Your task to perform on an android device: Go to Wikipedia Image 0: 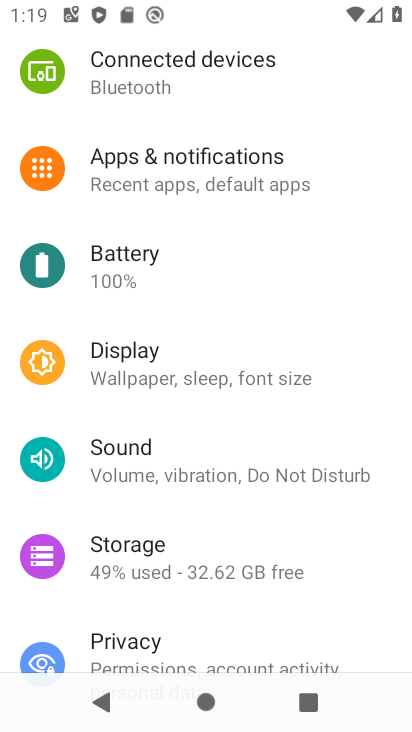
Step 0: press home button
Your task to perform on an android device: Go to Wikipedia Image 1: 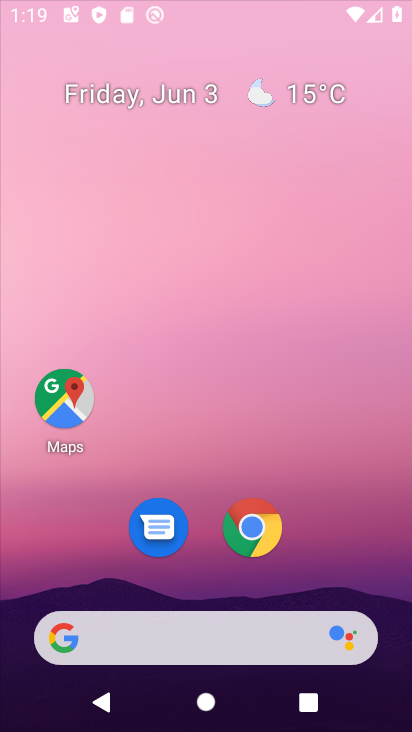
Step 1: press home button
Your task to perform on an android device: Go to Wikipedia Image 2: 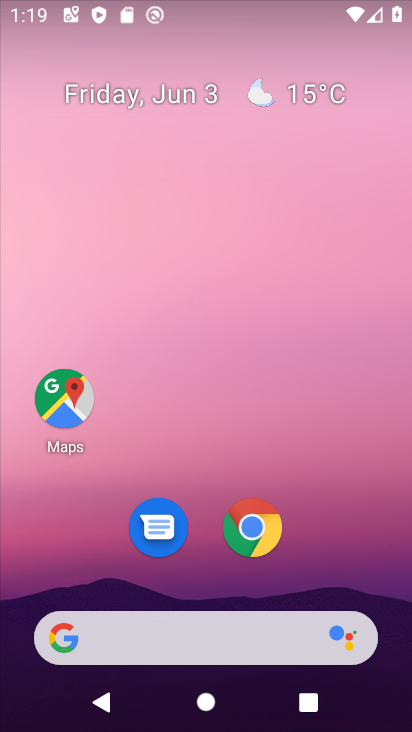
Step 2: click (269, 528)
Your task to perform on an android device: Go to Wikipedia Image 3: 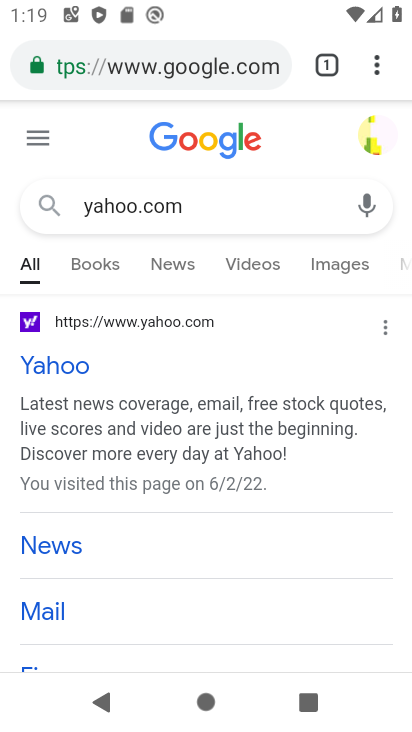
Step 3: click (224, 69)
Your task to perform on an android device: Go to Wikipedia Image 4: 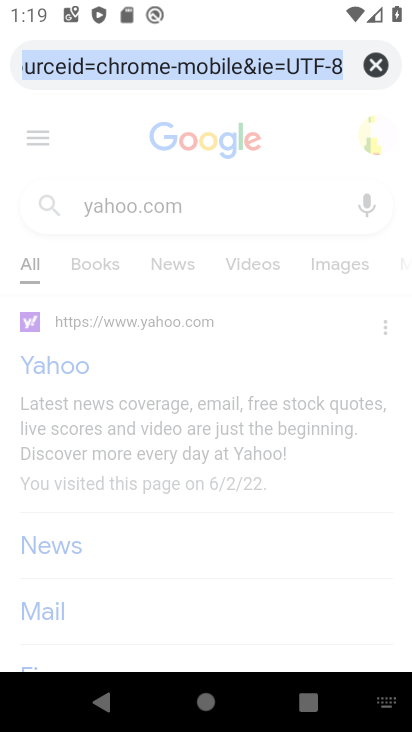
Step 4: click (374, 59)
Your task to perform on an android device: Go to Wikipedia Image 5: 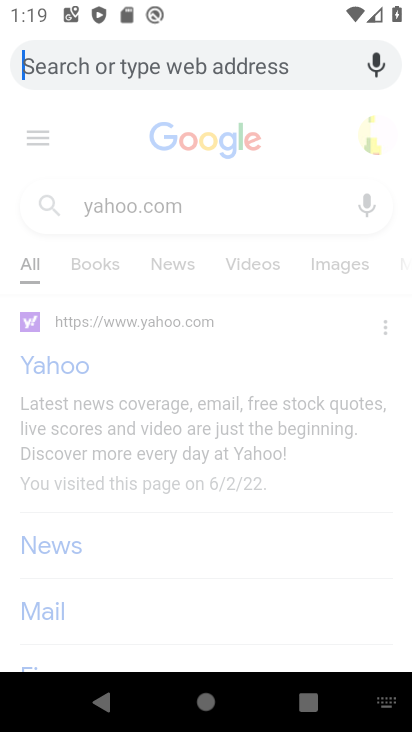
Step 5: type "wikipedia"
Your task to perform on an android device: Go to Wikipedia Image 6: 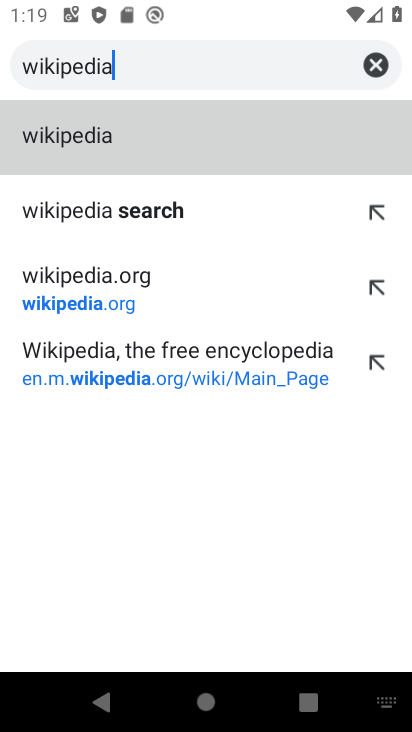
Step 6: click (150, 285)
Your task to perform on an android device: Go to Wikipedia Image 7: 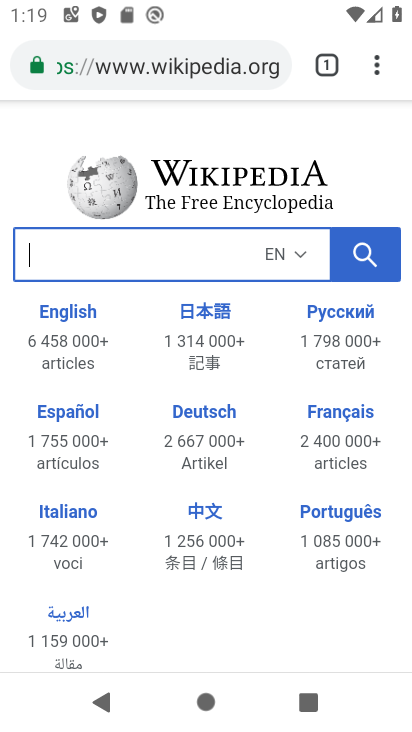
Step 7: task complete